Your task to perform on an android device: check google app version Image 0: 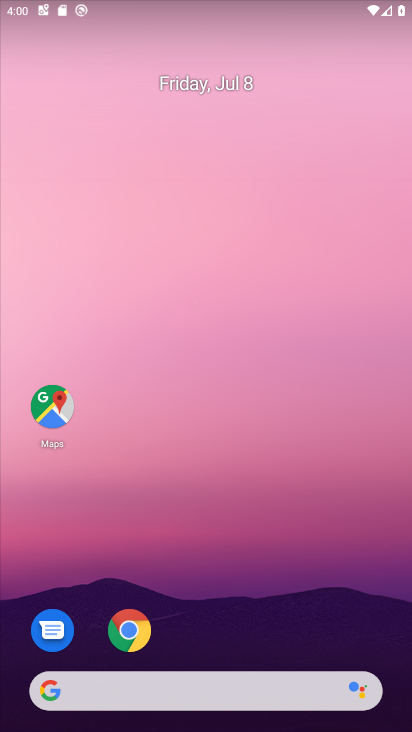
Step 0: drag from (278, 469) to (296, 81)
Your task to perform on an android device: check google app version Image 1: 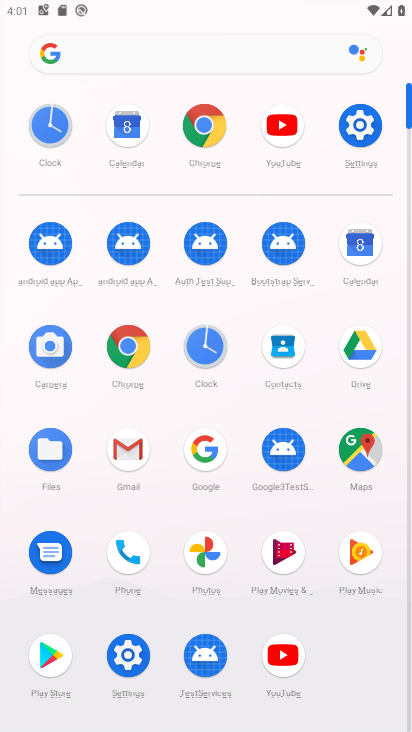
Step 1: click (204, 450)
Your task to perform on an android device: check google app version Image 2: 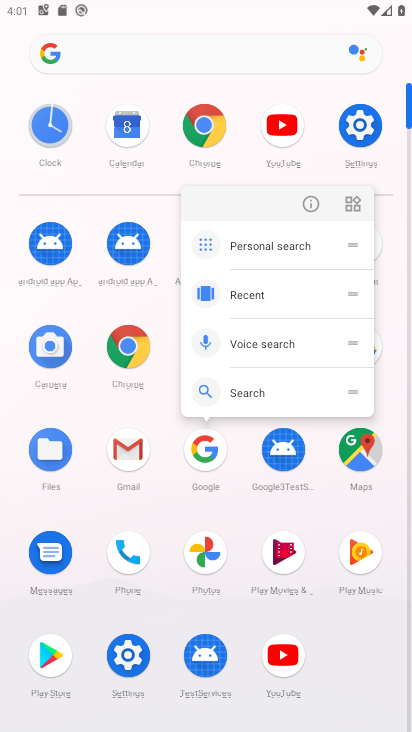
Step 2: click (314, 197)
Your task to perform on an android device: check google app version Image 3: 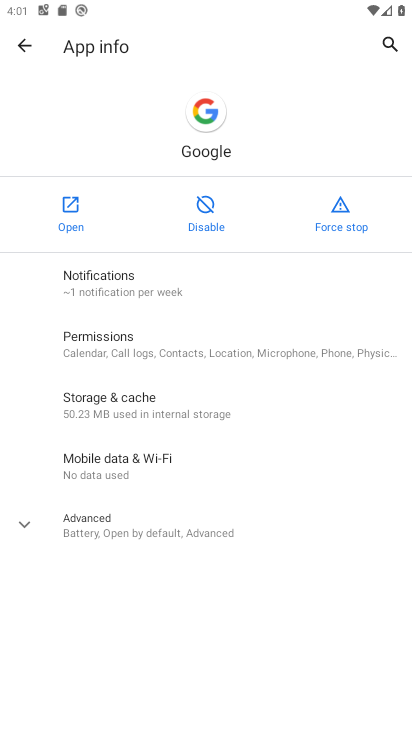
Step 3: click (157, 527)
Your task to perform on an android device: check google app version Image 4: 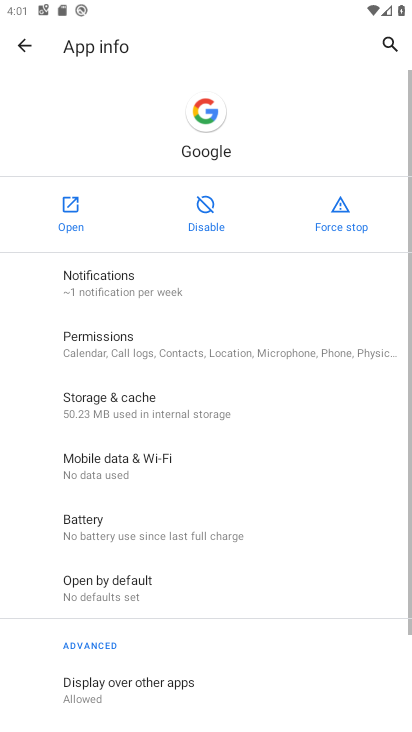
Step 4: task complete